Your task to perform on an android device: Open Wikipedia Image 0: 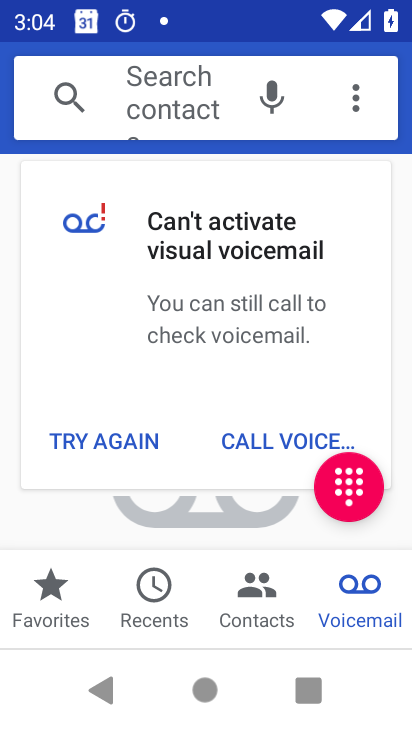
Step 0: press home button
Your task to perform on an android device: Open Wikipedia Image 1: 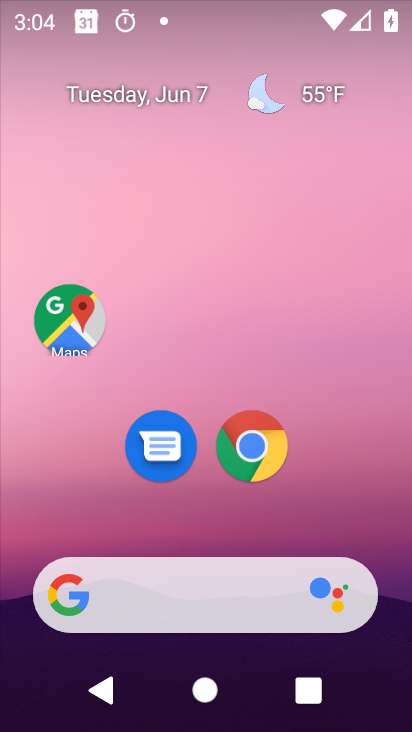
Step 1: click (256, 441)
Your task to perform on an android device: Open Wikipedia Image 2: 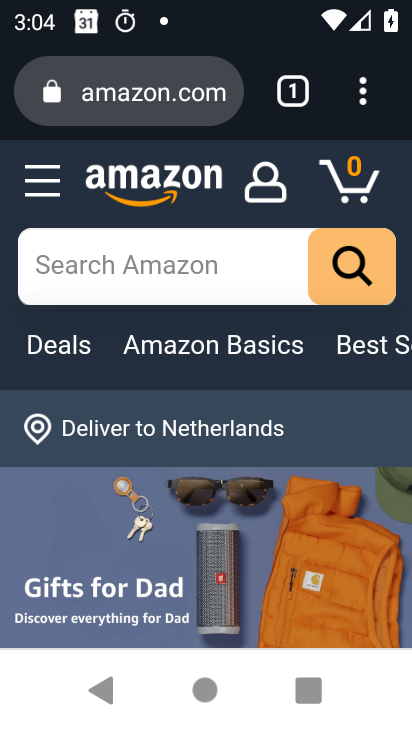
Step 2: click (123, 90)
Your task to perform on an android device: Open Wikipedia Image 3: 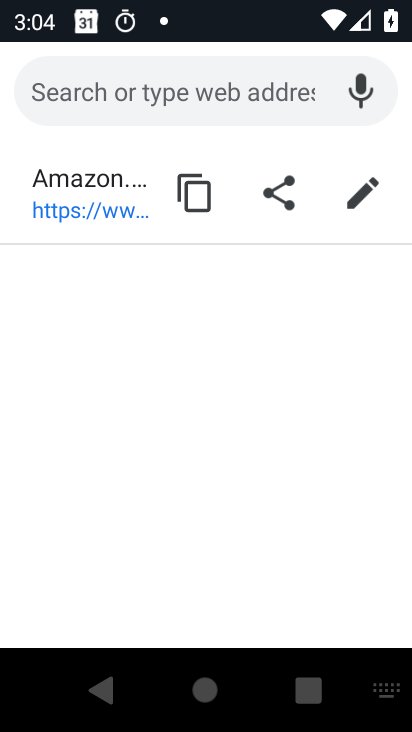
Step 3: type "wikipedia"
Your task to perform on an android device: Open Wikipedia Image 4: 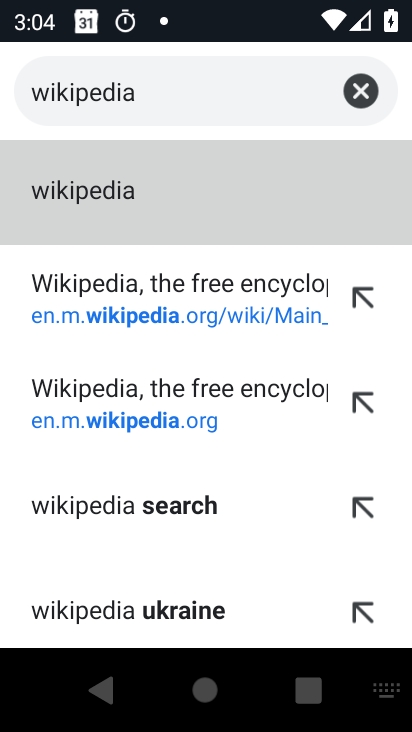
Step 4: click (144, 287)
Your task to perform on an android device: Open Wikipedia Image 5: 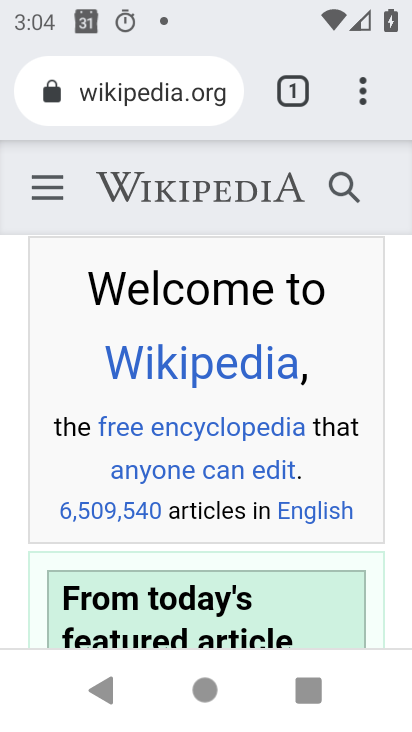
Step 5: task complete